Your task to perform on an android device: Open notification settings Image 0: 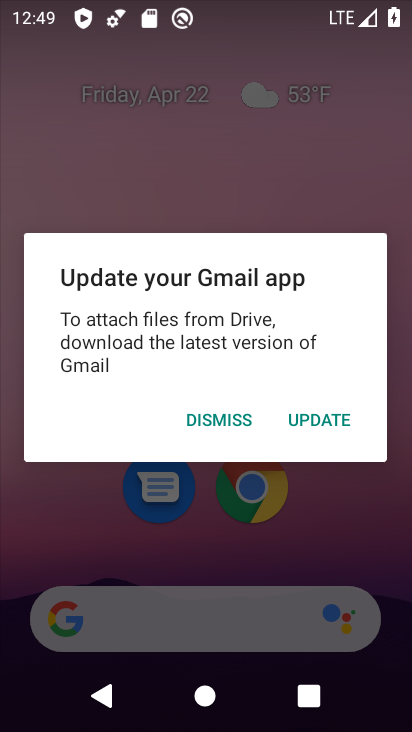
Step 0: drag from (254, 12) to (242, 573)
Your task to perform on an android device: Open notification settings Image 1: 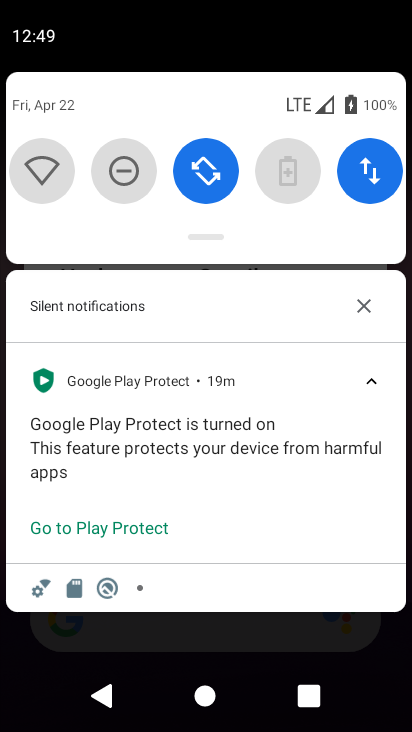
Step 1: drag from (163, 93) to (184, 570)
Your task to perform on an android device: Open notification settings Image 2: 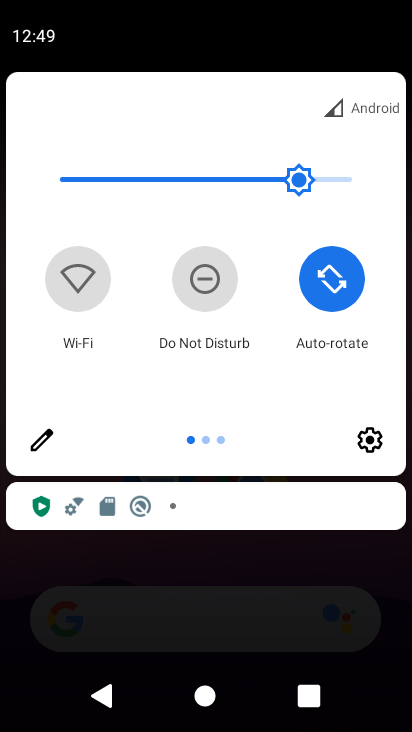
Step 2: click (383, 443)
Your task to perform on an android device: Open notification settings Image 3: 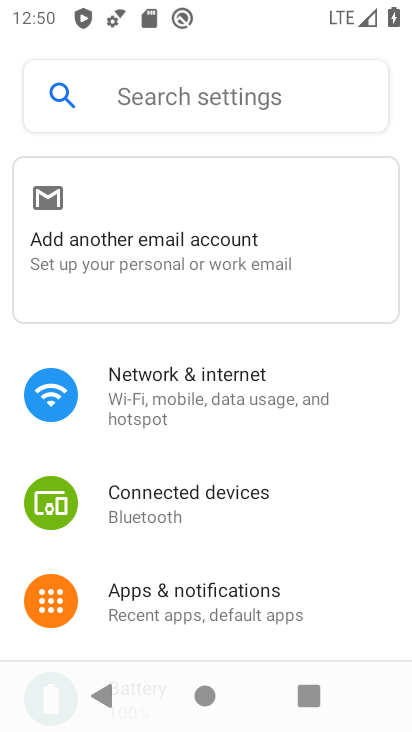
Step 3: click (169, 588)
Your task to perform on an android device: Open notification settings Image 4: 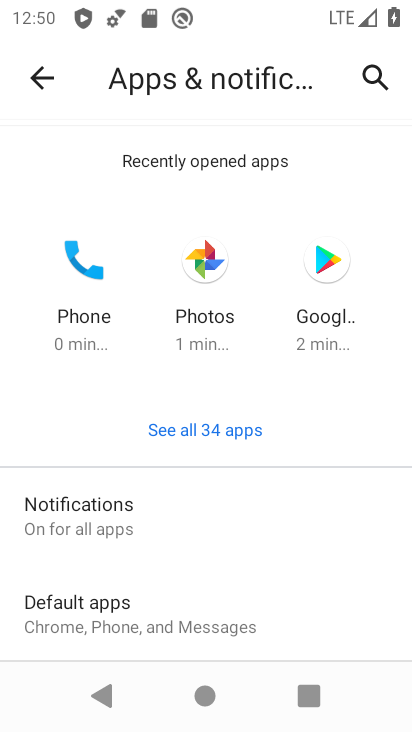
Step 4: task complete